Your task to perform on an android device: allow notifications from all sites in the chrome app Image 0: 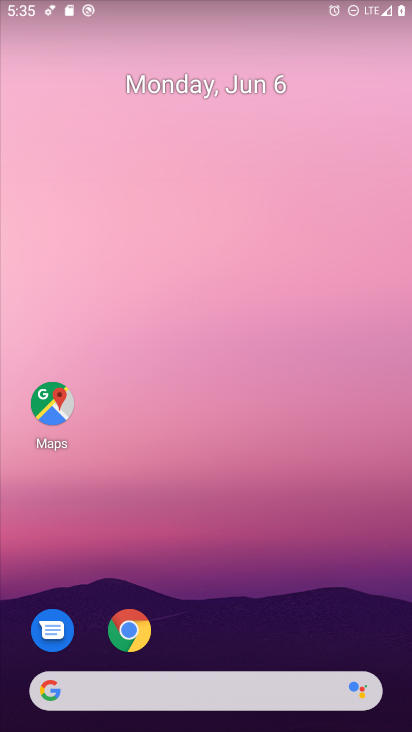
Step 0: drag from (280, 575) to (213, 725)
Your task to perform on an android device: allow notifications from all sites in the chrome app Image 1: 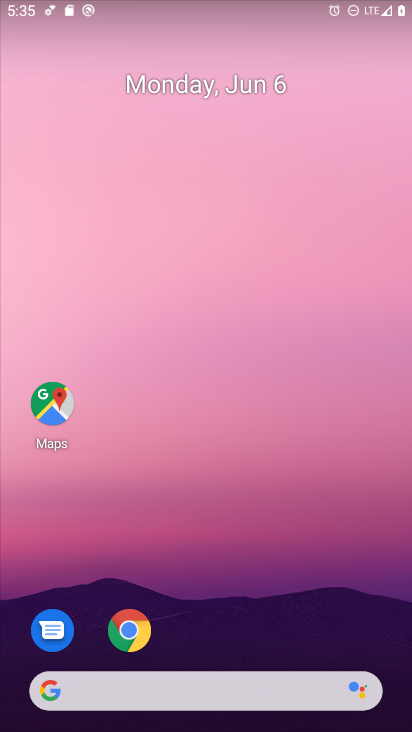
Step 1: click (139, 624)
Your task to perform on an android device: allow notifications from all sites in the chrome app Image 2: 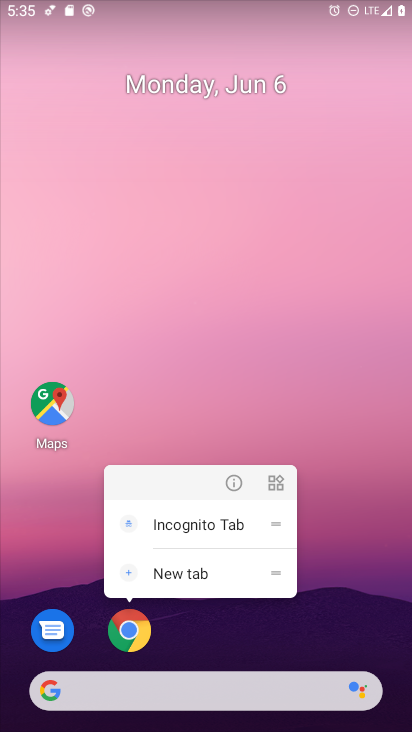
Step 2: click (135, 655)
Your task to perform on an android device: allow notifications from all sites in the chrome app Image 3: 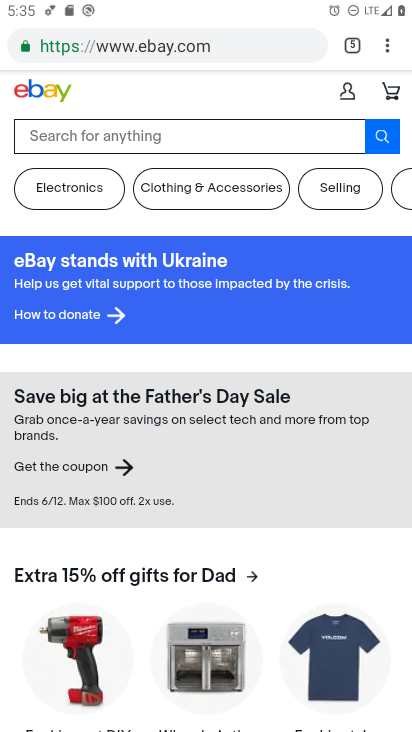
Step 3: click (380, 53)
Your task to perform on an android device: allow notifications from all sites in the chrome app Image 4: 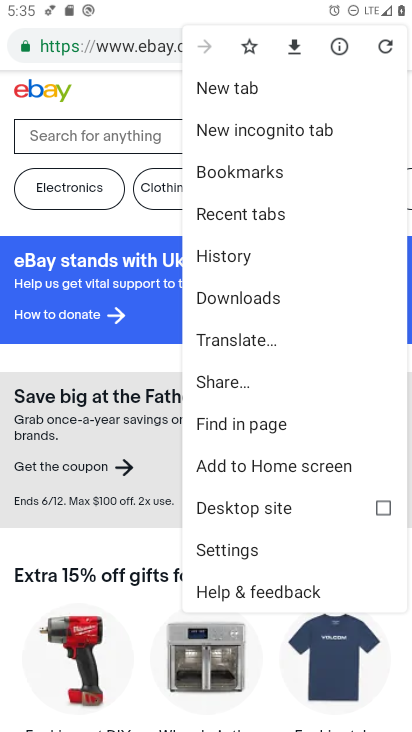
Step 4: click (254, 549)
Your task to perform on an android device: allow notifications from all sites in the chrome app Image 5: 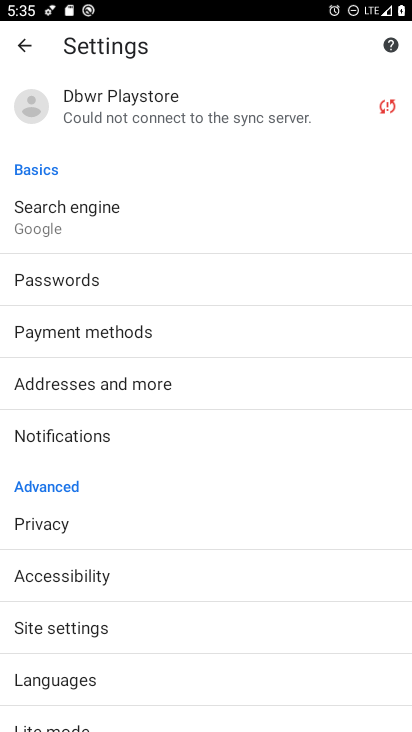
Step 5: click (137, 640)
Your task to perform on an android device: allow notifications from all sites in the chrome app Image 6: 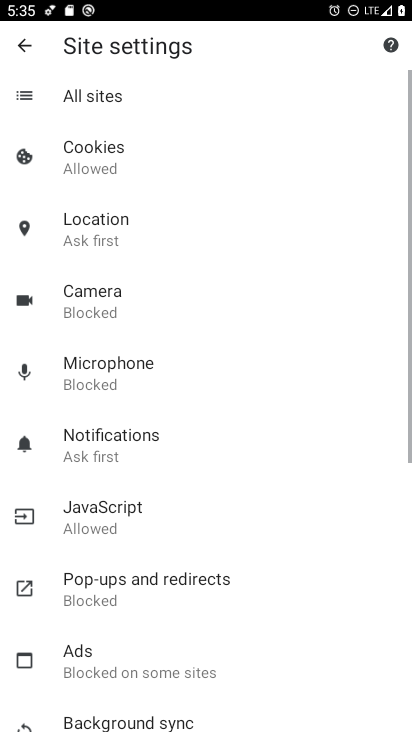
Step 6: click (181, 94)
Your task to perform on an android device: allow notifications from all sites in the chrome app Image 7: 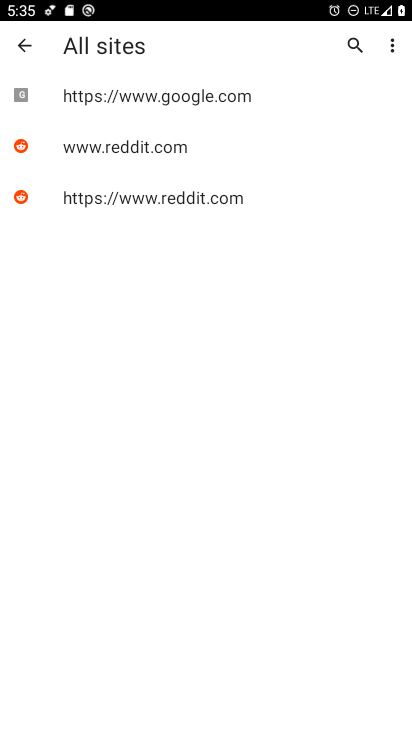
Step 7: click (214, 95)
Your task to perform on an android device: allow notifications from all sites in the chrome app Image 8: 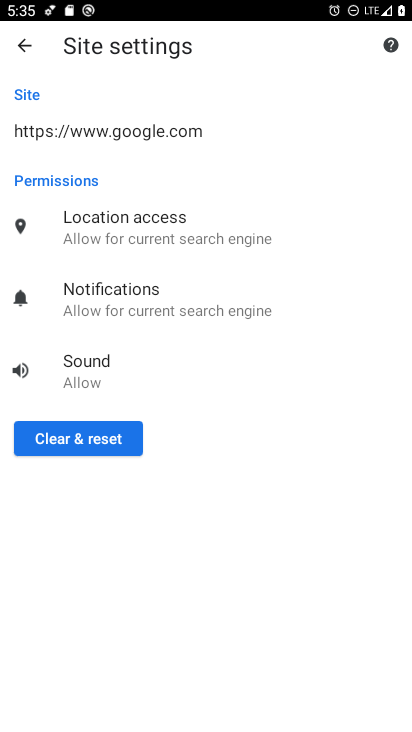
Step 8: click (191, 310)
Your task to perform on an android device: allow notifications from all sites in the chrome app Image 9: 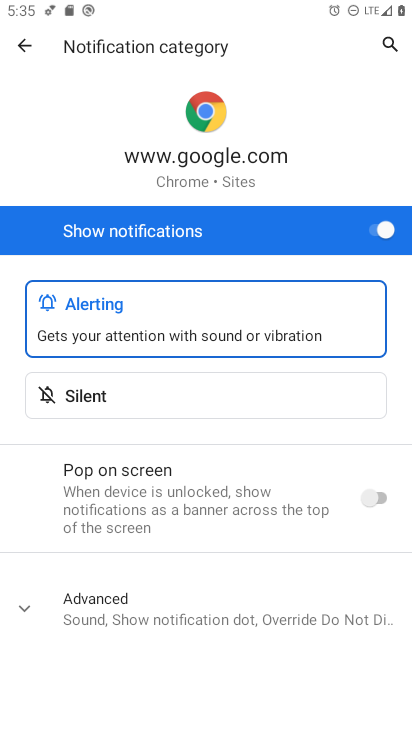
Step 9: task complete